Your task to perform on an android device: Is it going to rain tomorrow? Image 0: 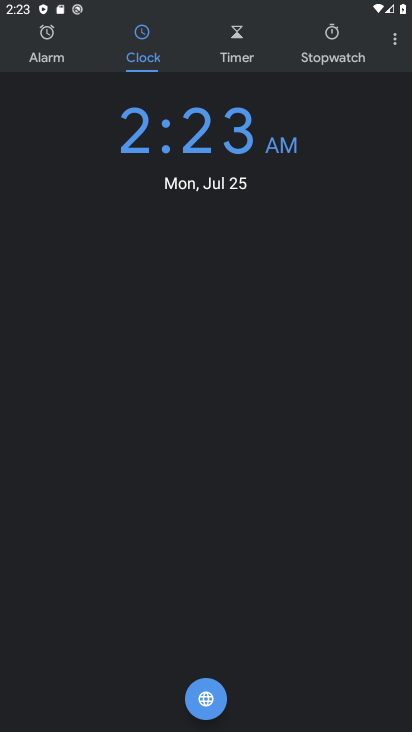
Step 0: press home button
Your task to perform on an android device: Is it going to rain tomorrow? Image 1: 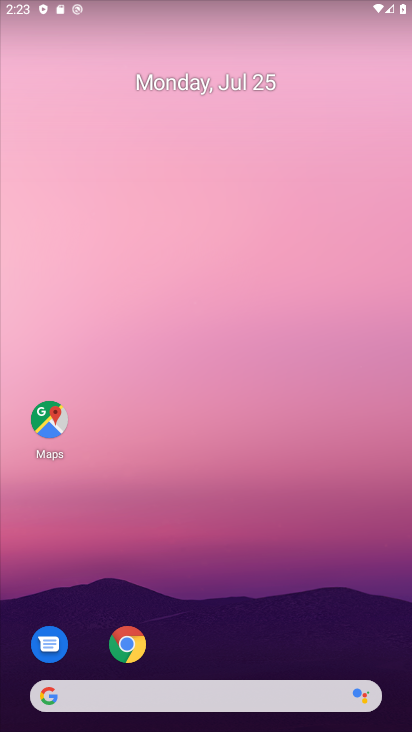
Step 1: drag from (181, 699) to (257, 66)
Your task to perform on an android device: Is it going to rain tomorrow? Image 2: 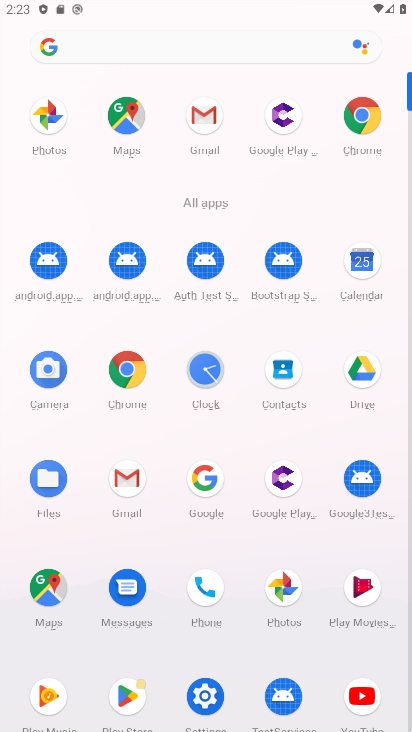
Step 2: click (360, 115)
Your task to perform on an android device: Is it going to rain tomorrow? Image 3: 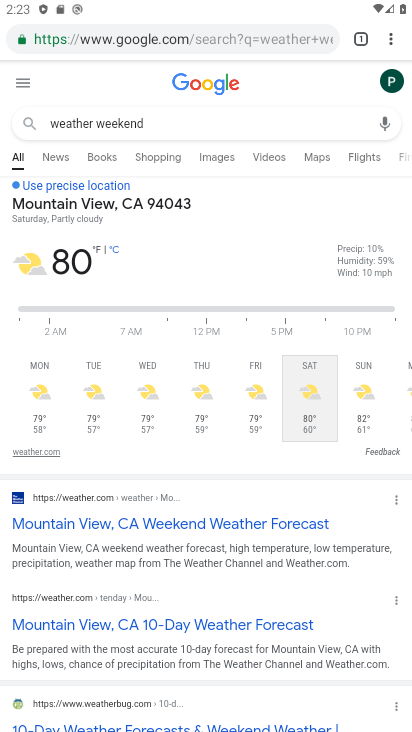
Step 3: click (213, 116)
Your task to perform on an android device: Is it going to rain tomorrow? Image 4: 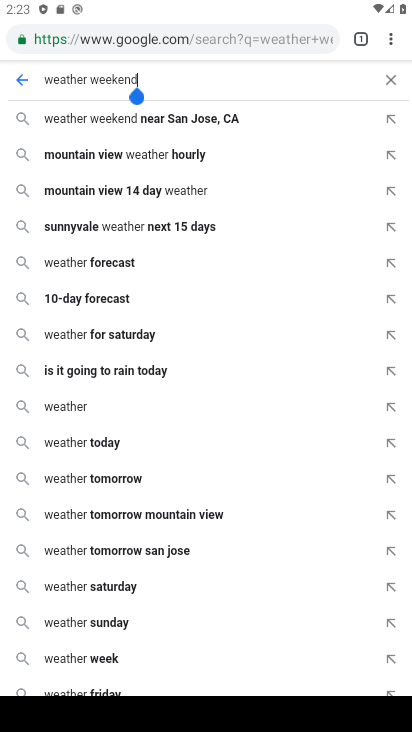
Step 4: click (381, 75)
Your task to perform on an android device: Is it going to rain tomorrow? Image 5: 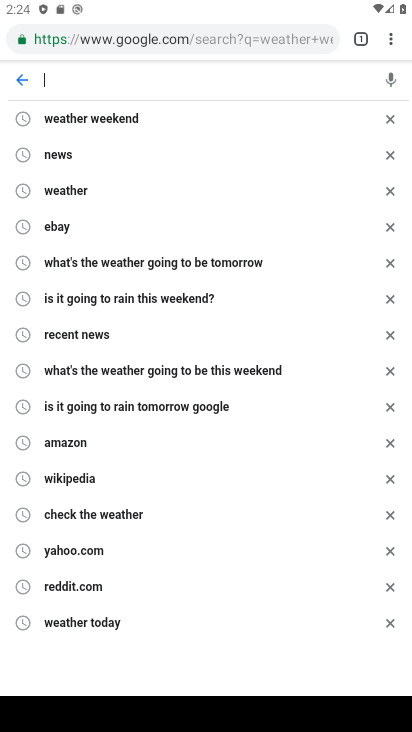
Step 5: type "weather tomorrow"
Your task to perform on an android device: Is it going to rain tomorrow? Image 6: 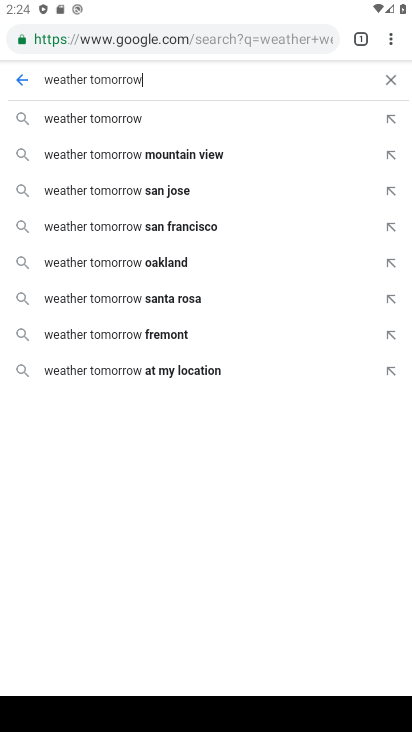
Step 6: click (104, 113)
Your task to perform on an android device: Is it going to rain tomorrow? Image 7: 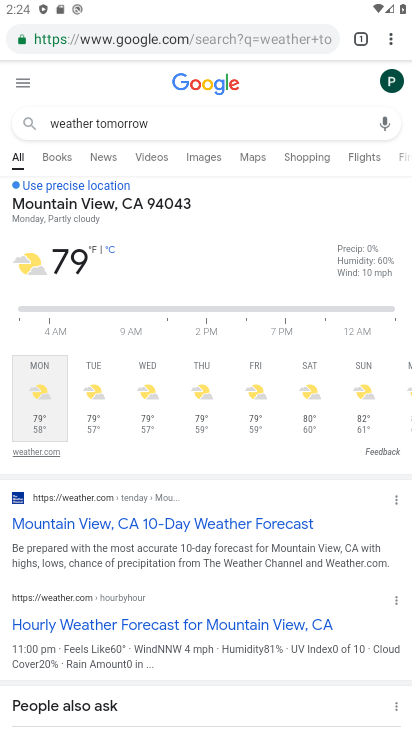
Step 7: task complete